Your task to perform on an android device: toggle wifi Image 0: 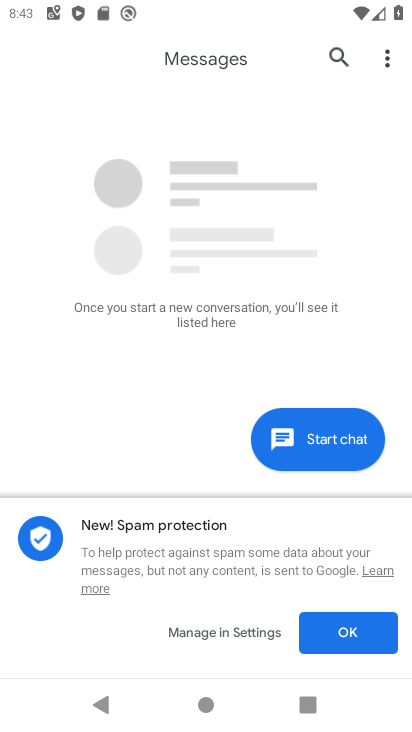
Step 0: press home button
Your task to perform on an android device: toggle wifi Image 1: 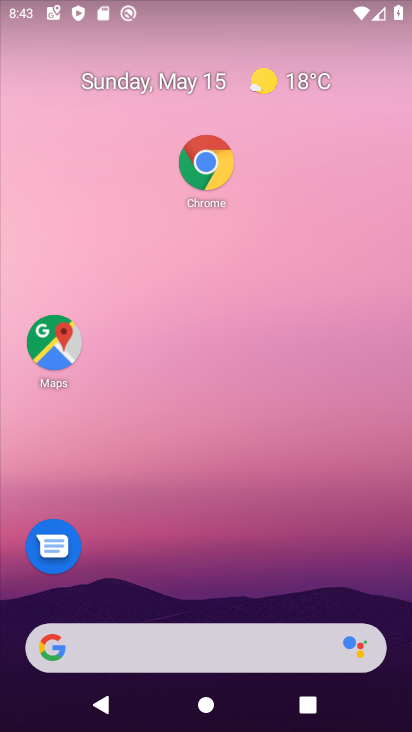
Step 1: drag from (260, 608) to (274, 239)
Your task to perform on an android device: toggle wifi Image 2: 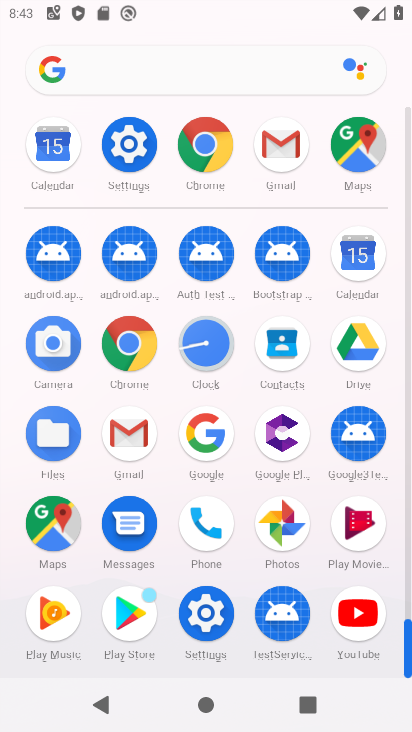
Step 2: click (120, 138)
Your task to perform on an android device: toggle wifi Image 3: 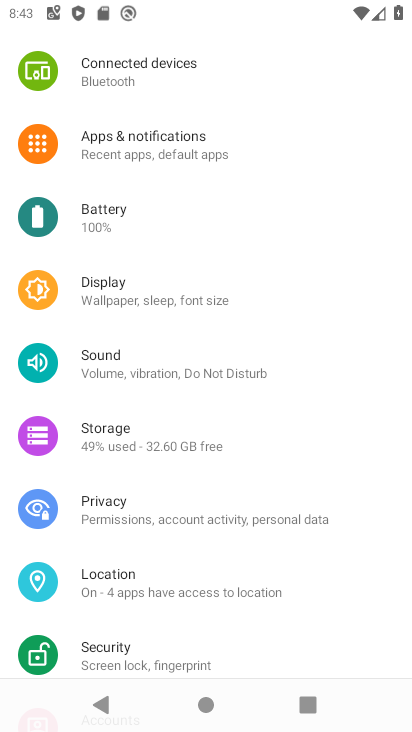
Step 3: drag from (208, 209) to (213, 358)
Your task to perform on an android device: toggle wifi Image 4: 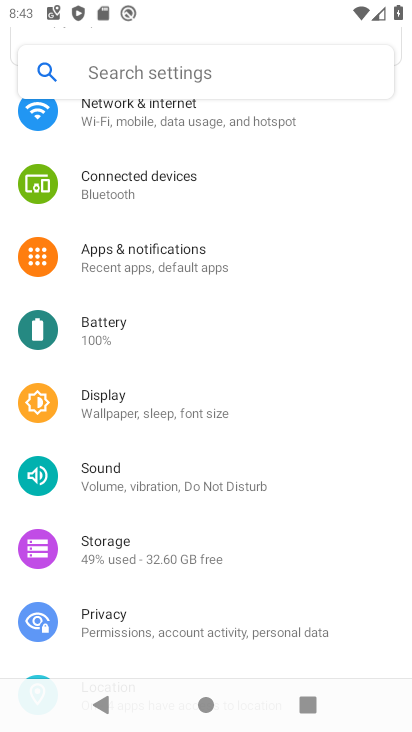
Step 4: drag from (213, 197) to (197, 611)
Your task to perform on an android device: toggle wifi Image 5: 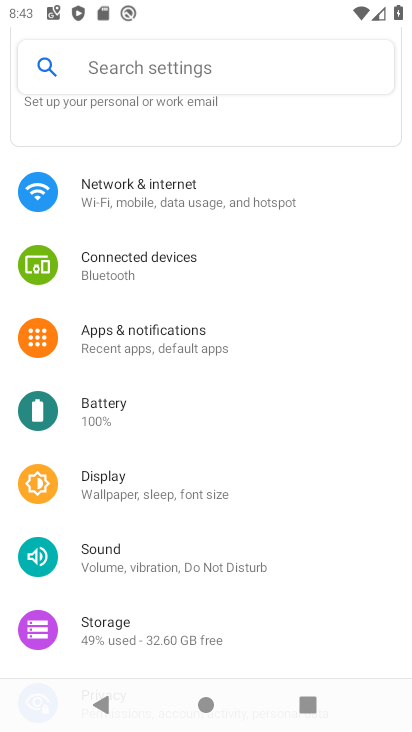
Step 5: click (161, 184)
Your task to perform on an android device: toggle wifi Image 6: 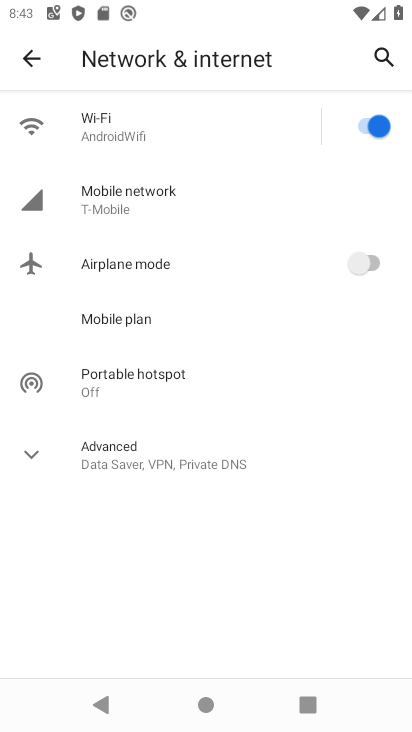
Step 6: click (363, 114)
Your task to perform on an android device: toggle wifi Image 7: 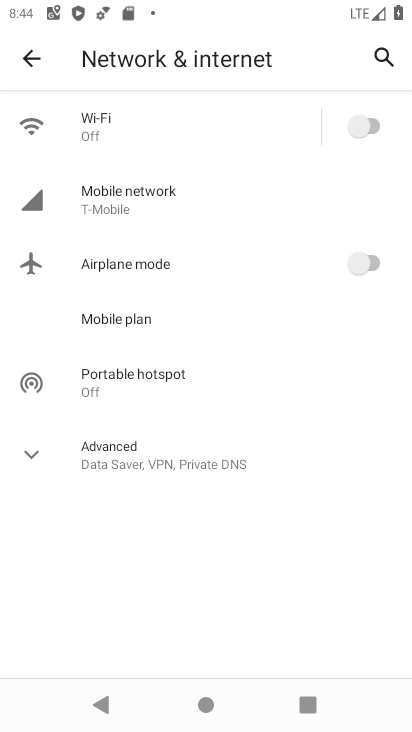
Step 7: task complete